Your task to perform on an android device: empty trash in the gmail app Image 0: 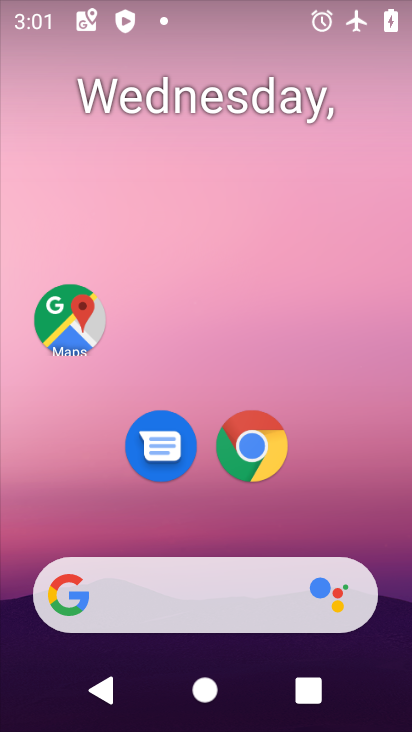
Step 0: drag from (201, 523) to (244, 166)
Your task to perform on an android device: empty trash in the gmail app Image 1: 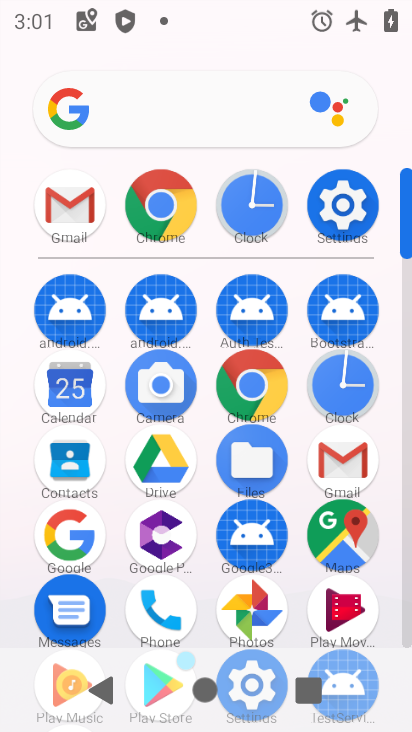
Step 1: click (336, 463)
Your task to perform on an android device: empty trash in the gmail app Image 2: 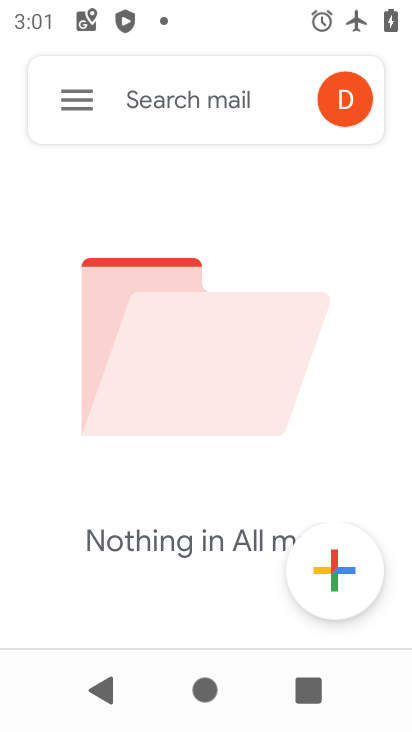
Step 2: click (77, 102)
Your task to perform on an android device: empty trash in the gmail app Image 3: 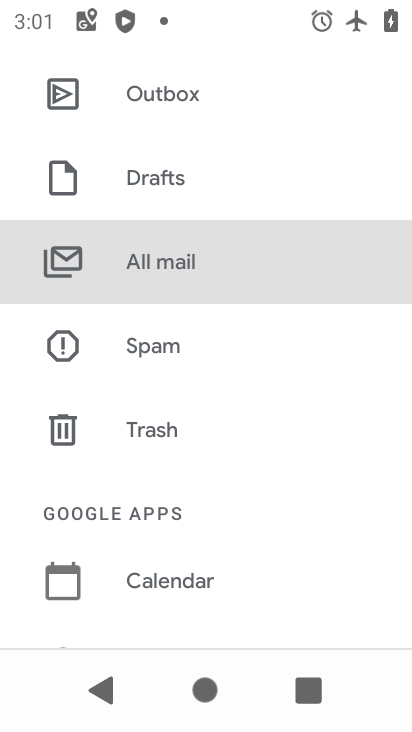
Step 3: click (177, 440)
Your task to perform on an android device: empty trash in the gmail app Image 4: 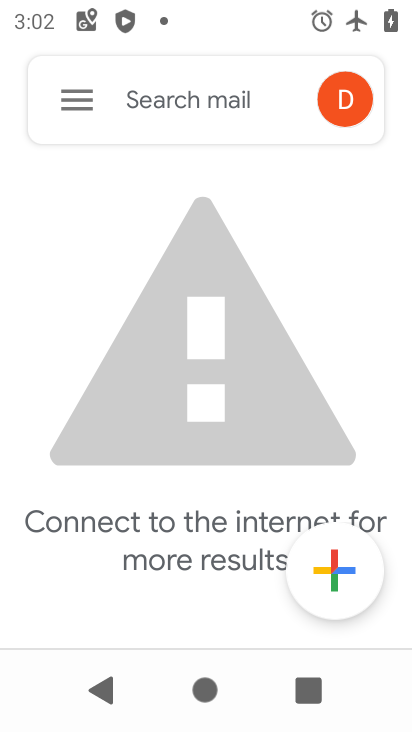
Step 4: task complete